Your task to perform on an android device: set the stopwatch Image 0: 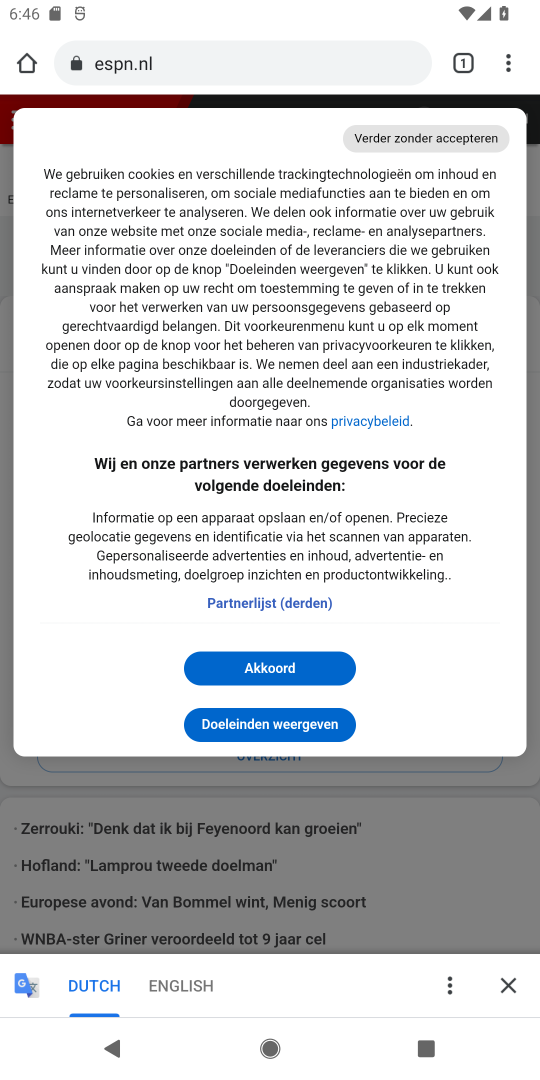
Step 0: press back button
Your task to perform on an android device: set the stopwatch Image 1: 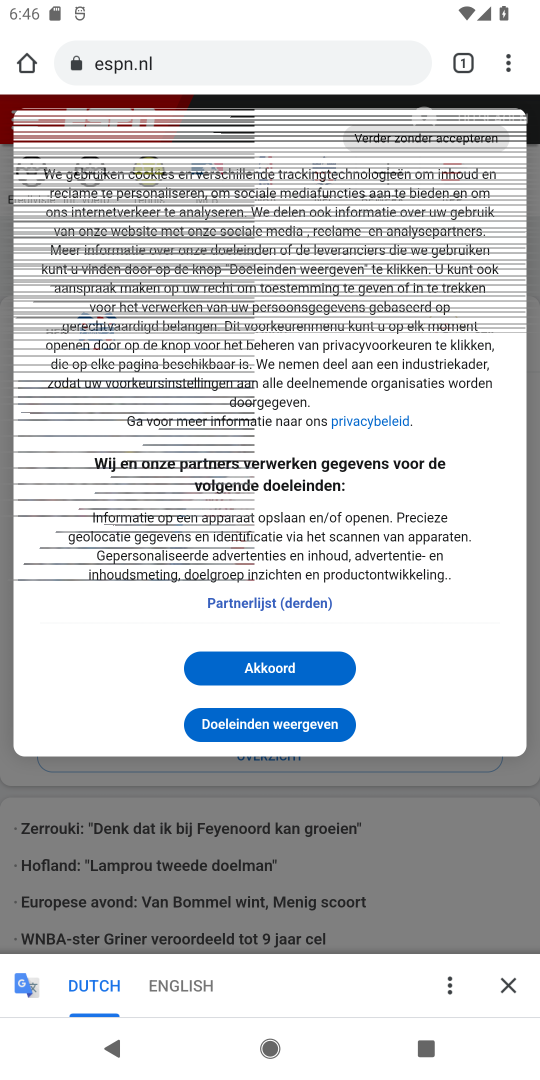
Step 1: press back button
Your task to perform on an android device: set the stopwatch Image 2: 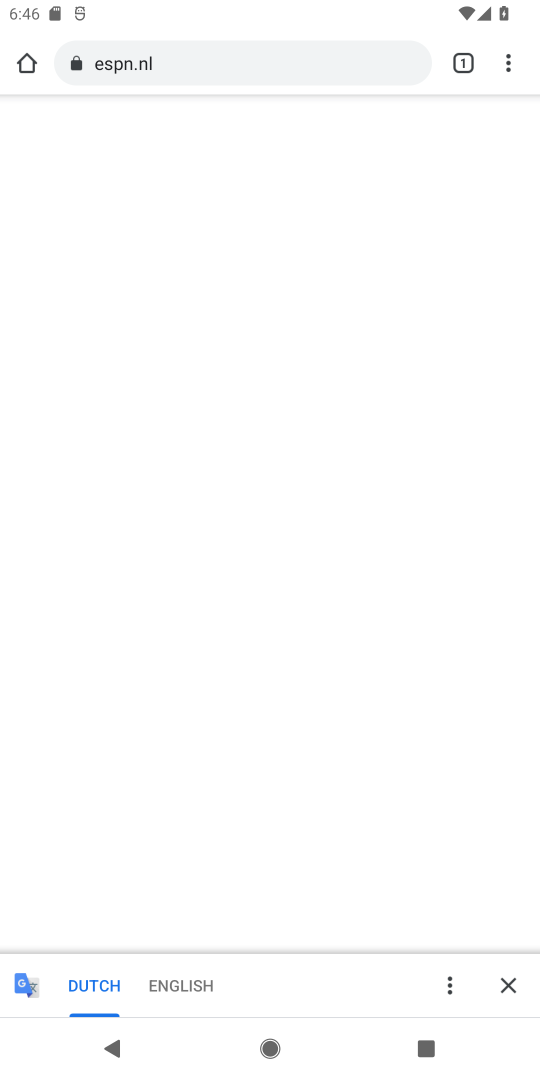
Step 2: press back button
Your task to perform on an android device: set the stopwatch Image 3: 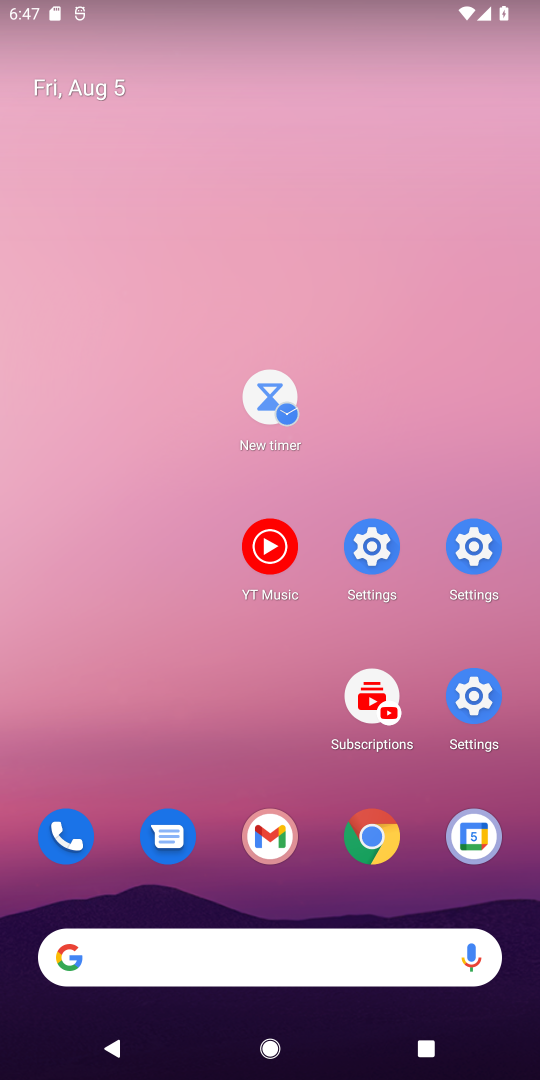
Step 3: drag from (346, 860) to (168, 90)
Your task to perform on an android device: set the stopwatch Image 4: 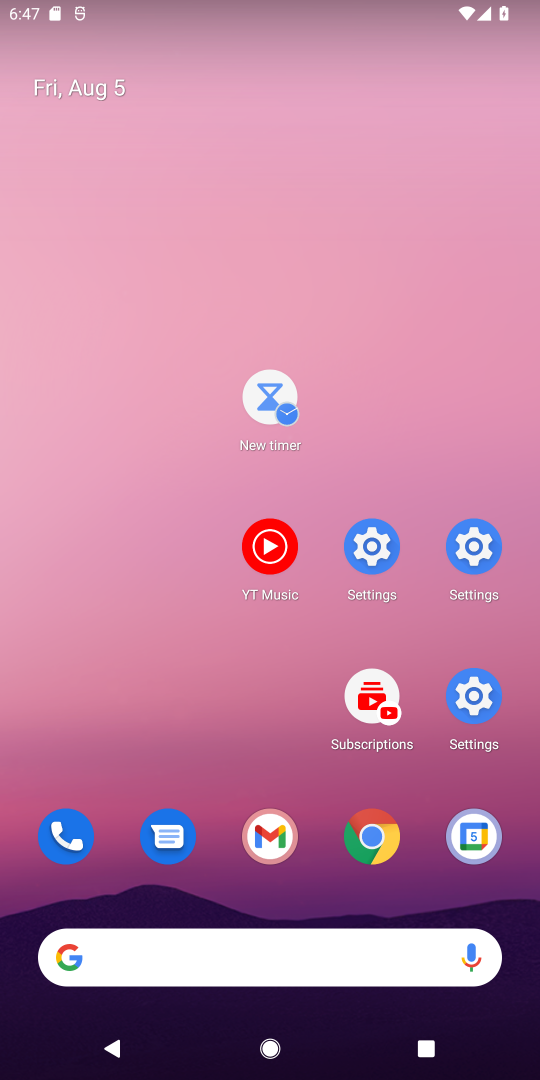
Step 4: drag from (221, 764) to (151, 87)
Your task to perform on an android device: set the stopwatch Image 5: 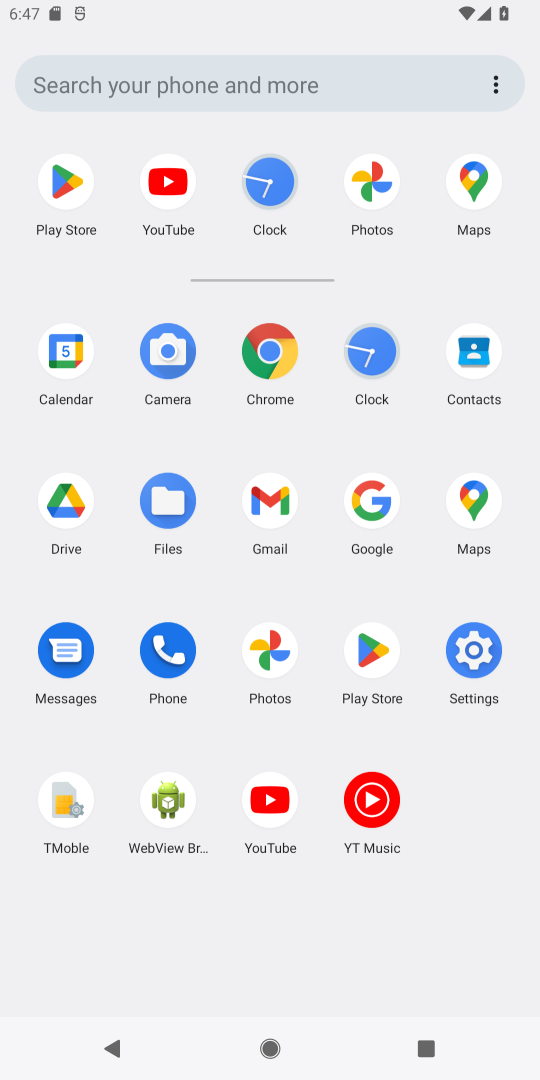
Step 5: drag from (262, 761) to (249, 243)
Your task to perform on an android device: set the stopwatch Image 6: 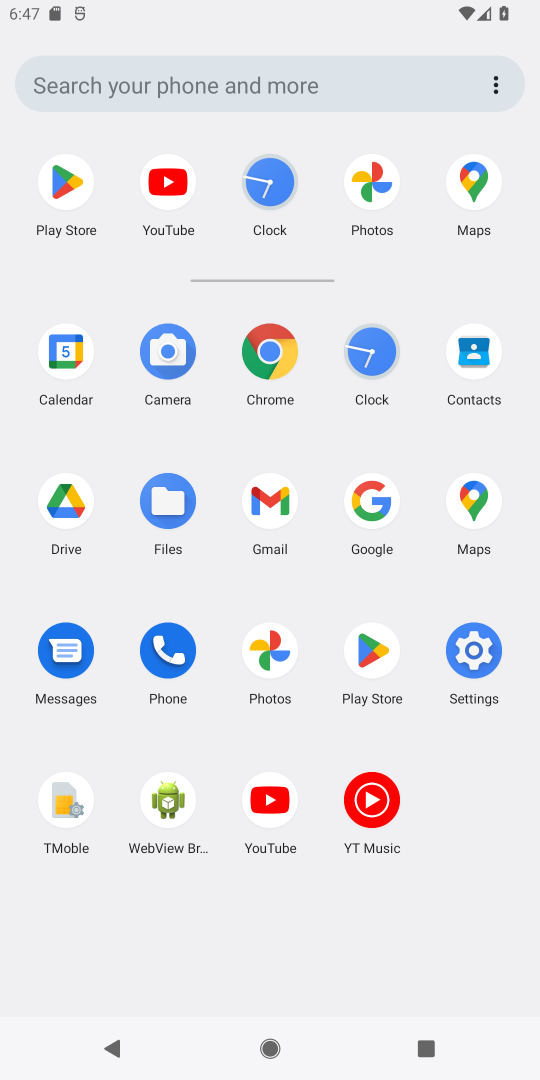
Step 6: click (372, 354)
Your task to perform on an android device: set the stopwatch Image 7: 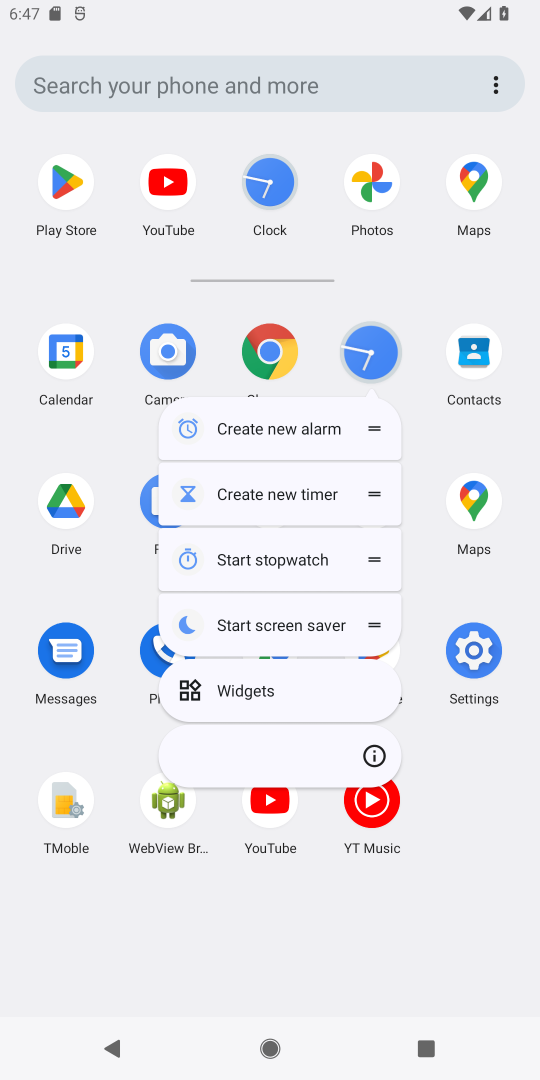
Step 7: click (371, 357)
Your task to perform on an android device: set the stopwatch Image 8: 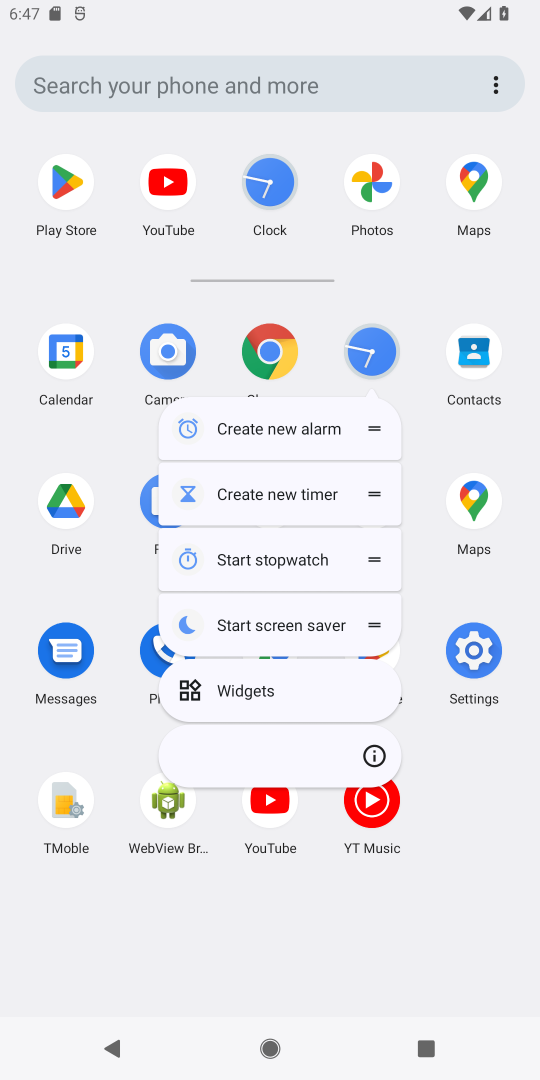
Step 8: click (371, 361)
Your task to perform on an android device: set the stopwatch Image 9: 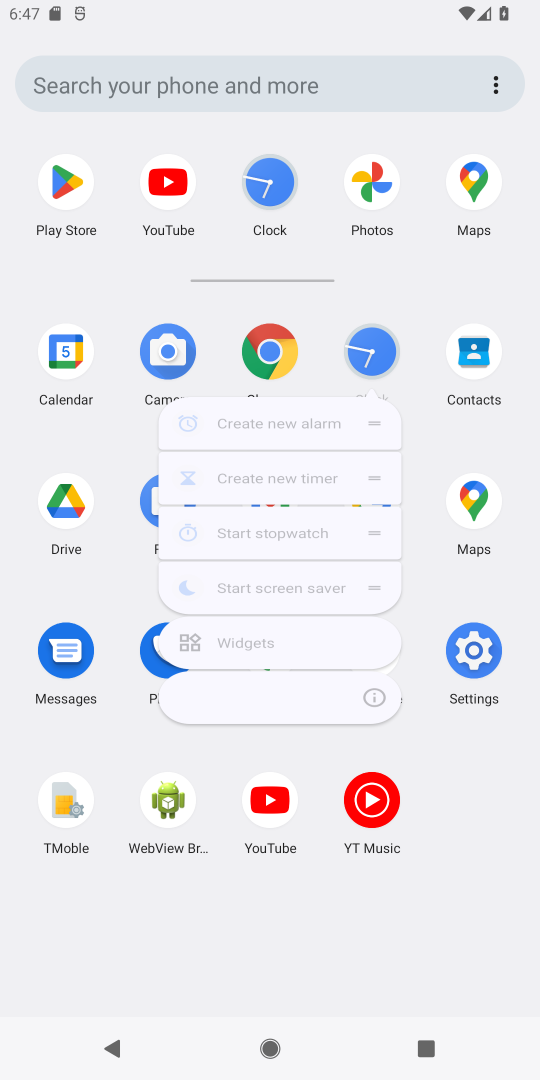
Step 9: click (371, 361)
Your task to perform on an android device: set the stopwatch Image 10: 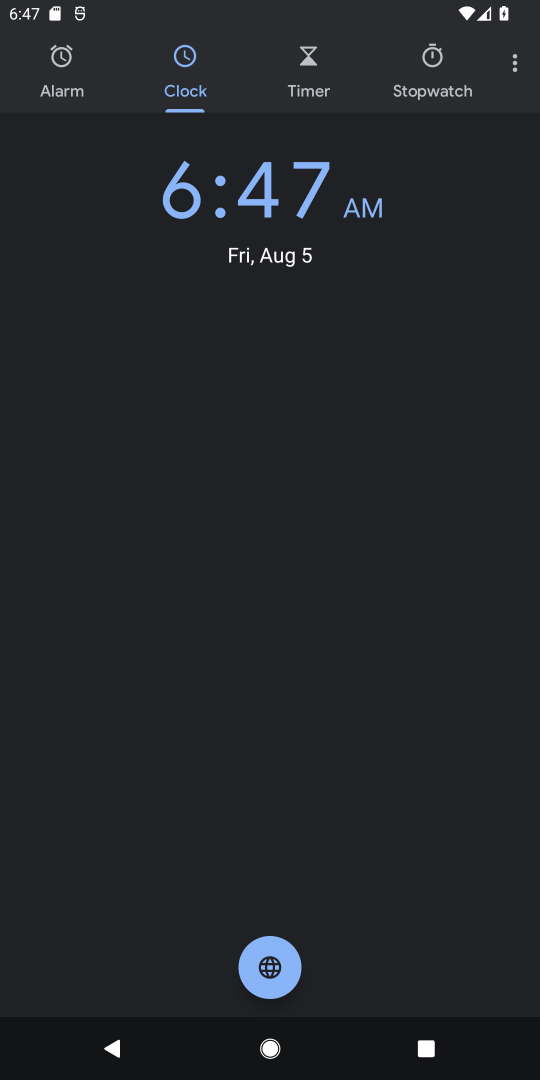
Step 10: click (371, 362)
Your task to perform on an android device: set the stopwatch Image 11: 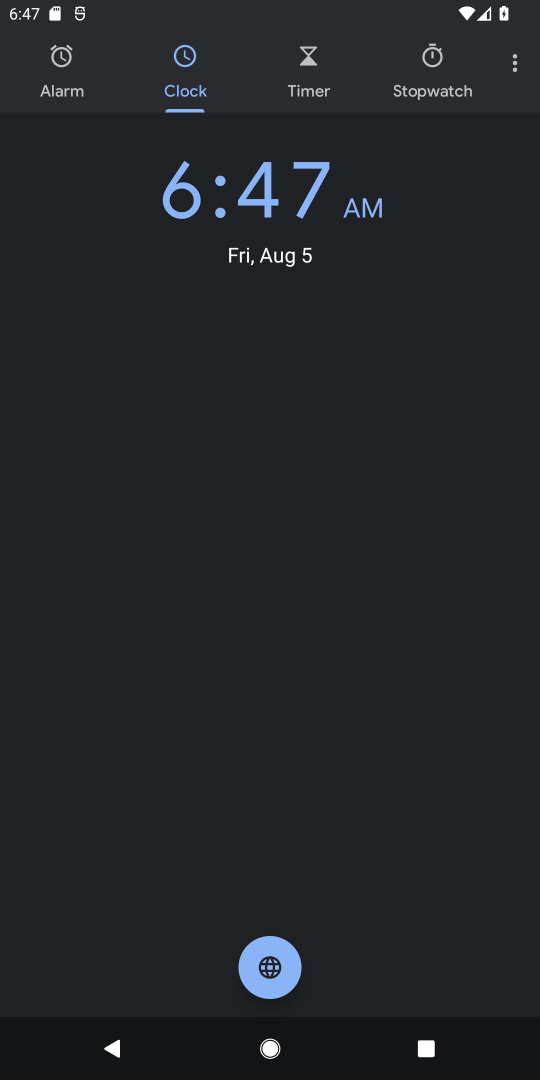
Step 11: click (440, 95)
Your task to perform on an android device: set the stopwatch Image 12: 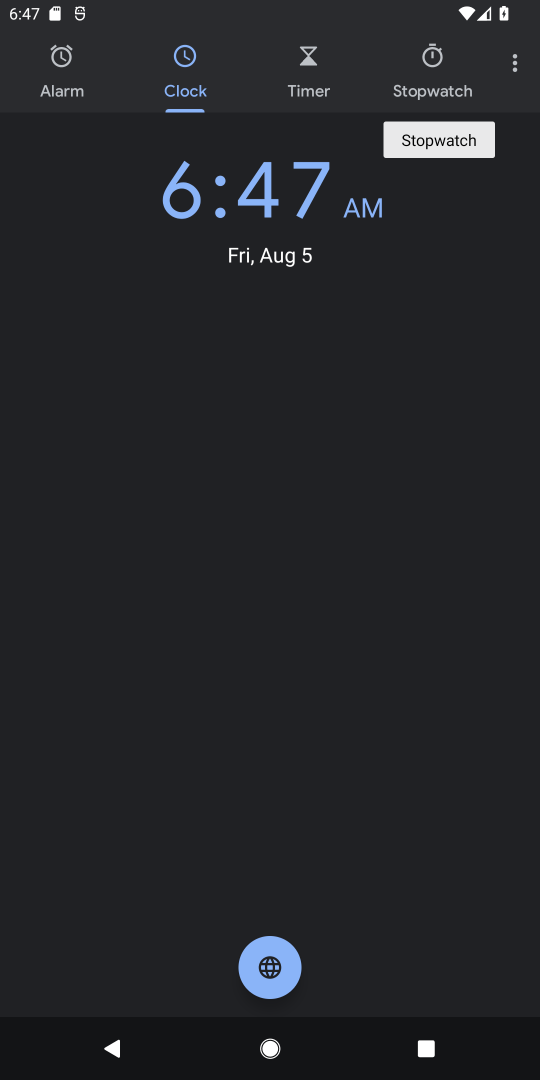
Step 12: click (431, 99)
Your task to perform on an android device: set the stopwatch Image 13: 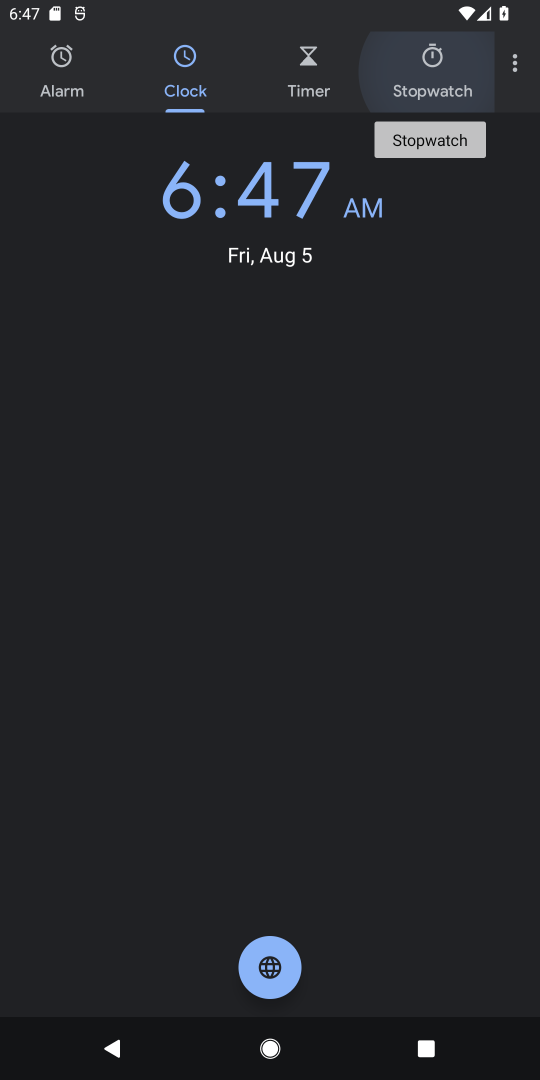
Step 13: click (429, 138)
Your task to perform on an android device: set the stopwatch Image 14: 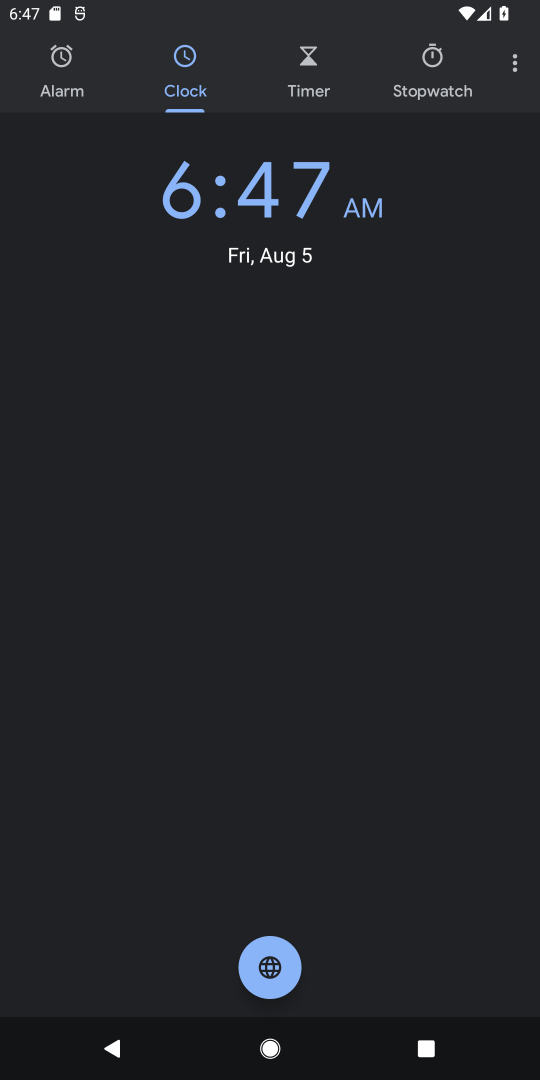
Step 14: drag from (429, 84) to (441, 149)
Your task to perform on an android device: set the stopwatch Image 15: 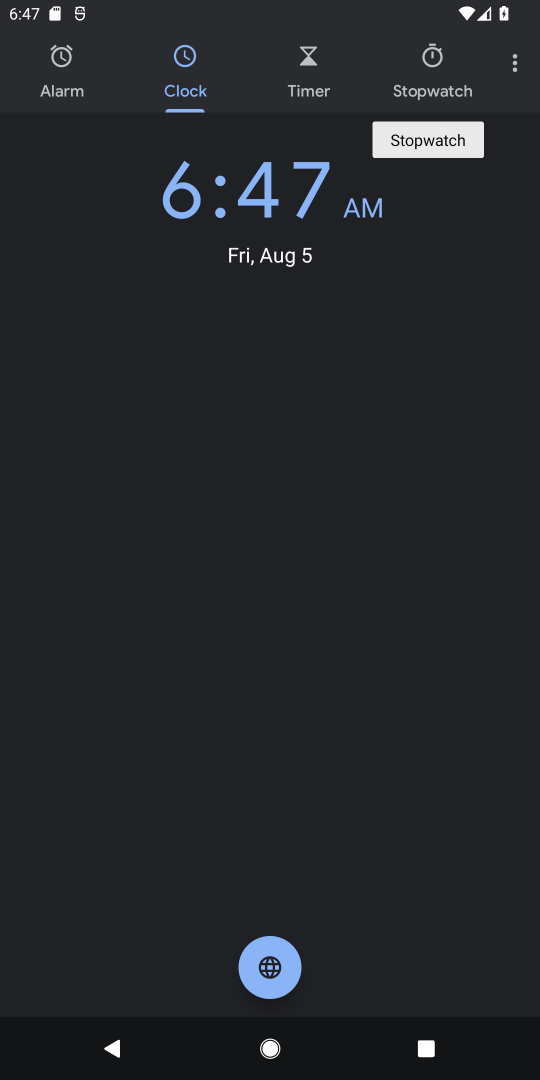
Step 15: click (431, 146)
Your task to perform on an android device: set the stopwatch Image 16: 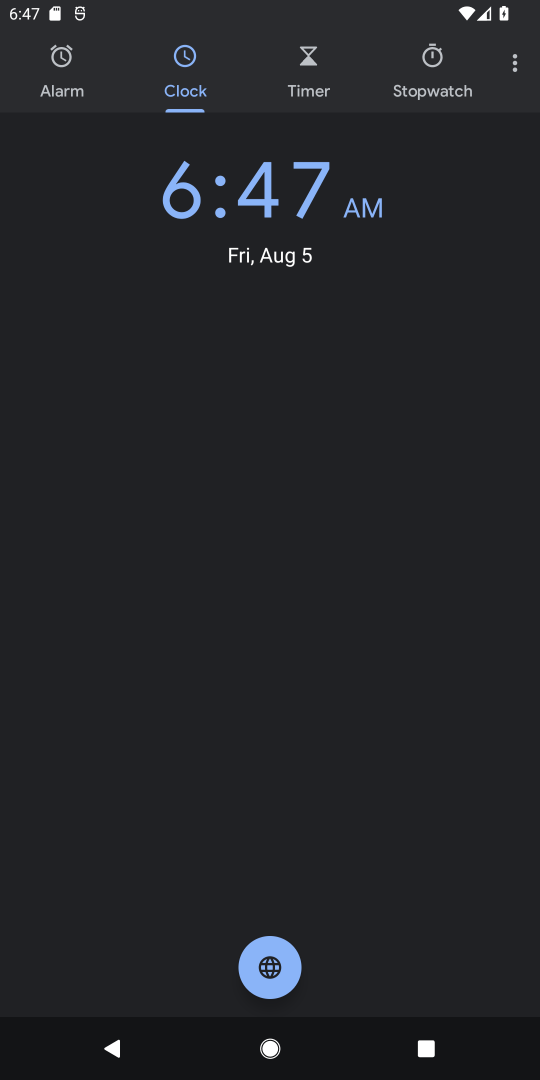
Step 16: click (430, 81)
Your task to perform on an android device: set the stopwatch Image 17: 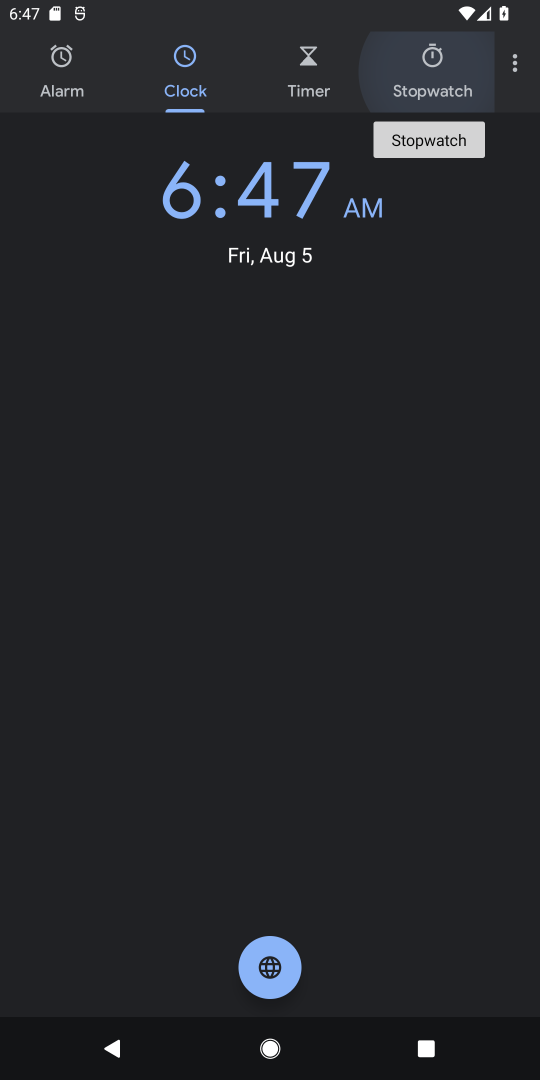
Step 17: click (434, 78)
Your task to perform on an android device: set the stopwatch Image 18: 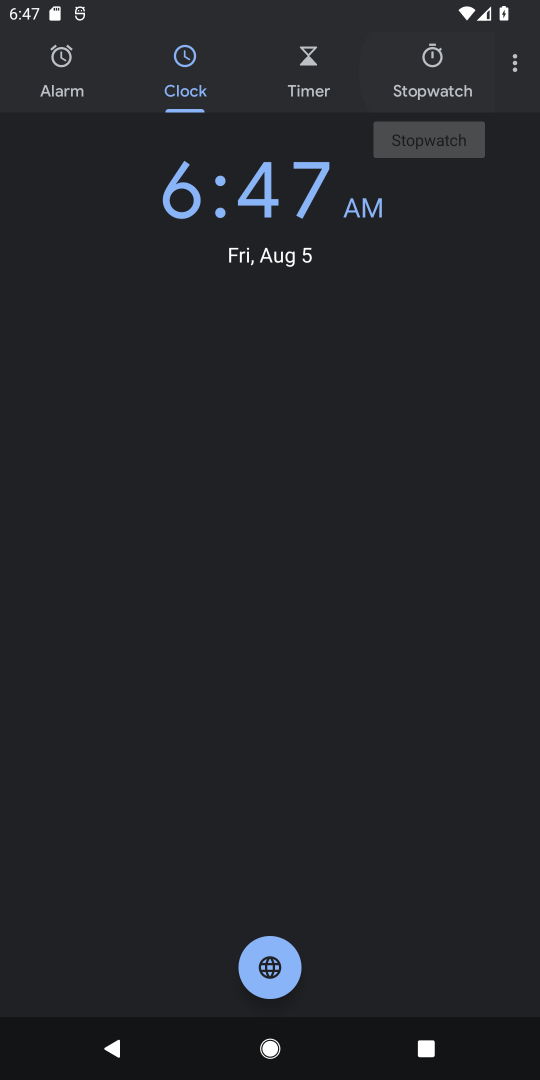
Step 18: click (435, 78)
Your task to perform on an android device: set the stopwatch Image 19: 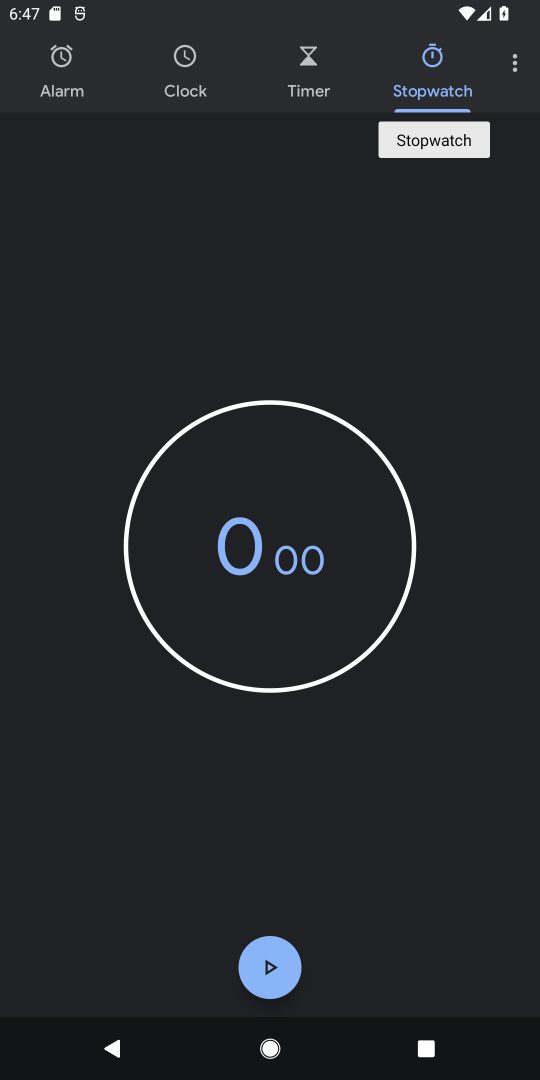
Step 19: click (276, 959)
Your task to perform on an android device: set the stopwatch Image 20: 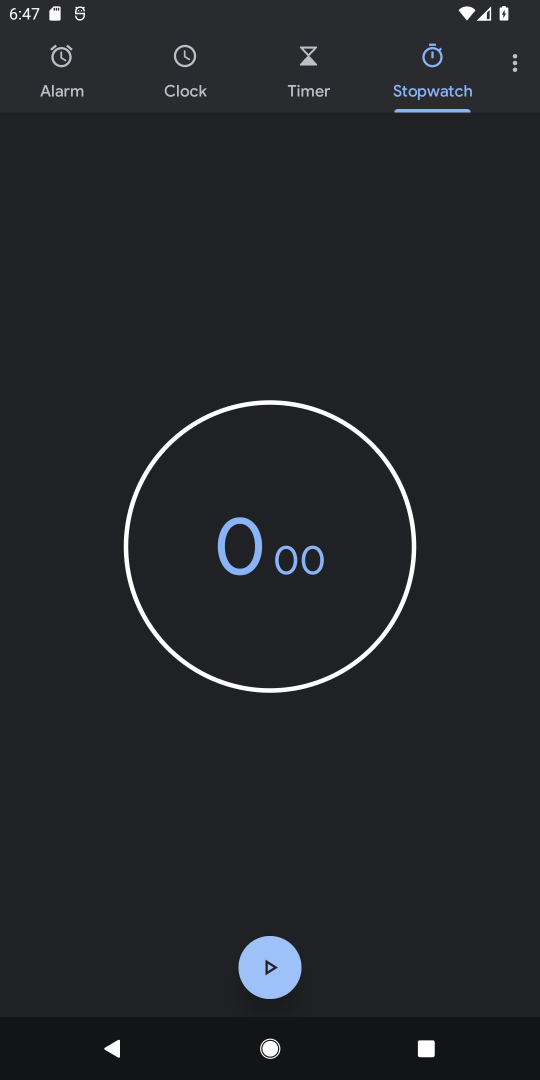
Step 20: click (265, 966)
Your task to perform on an android device: set the stopwatch Image 21: 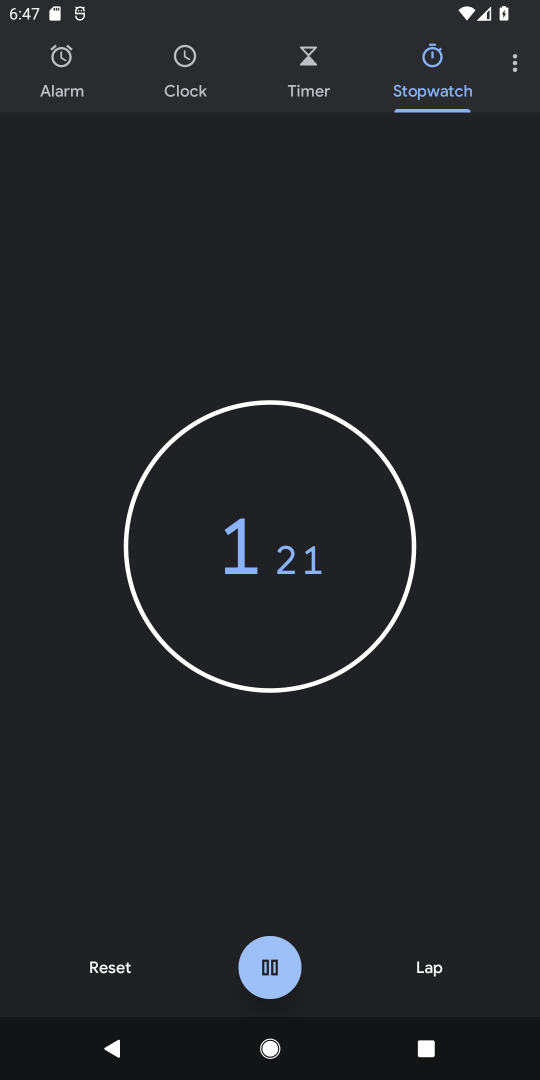
Step 21: click (266, 970)
Your task to perform on an android device: set the stopwatch Image 22: 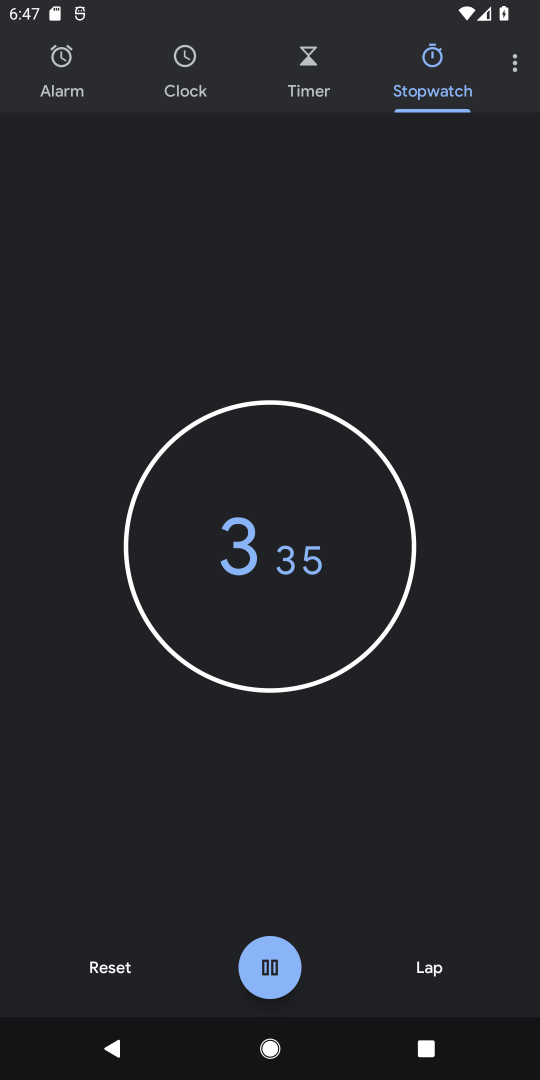
Step 22: click (278, 969)
Your task to perform on an android device: set the stopwatch Image 23: 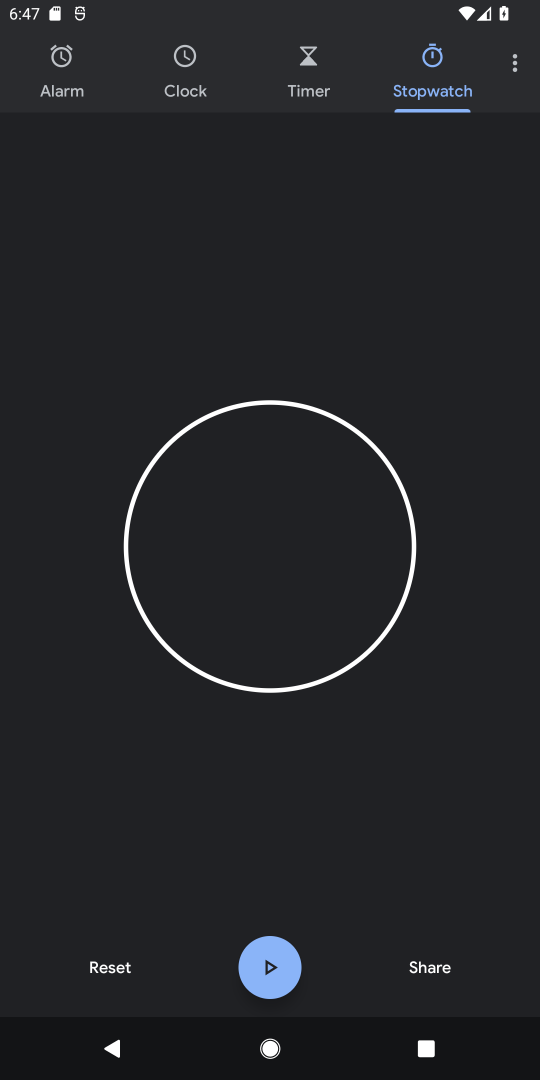
Step 23: task complete